Your task to perform on an android device: turn on sleep mode Image 0: 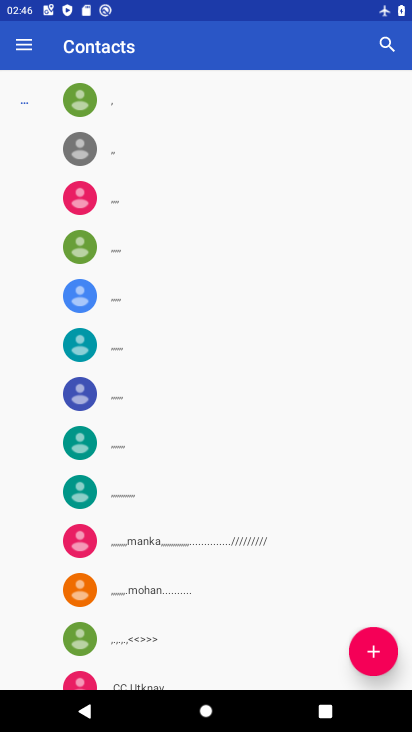
Step 0: press home button
Your task to perform on an android device: turn on sleep mode Image 1: 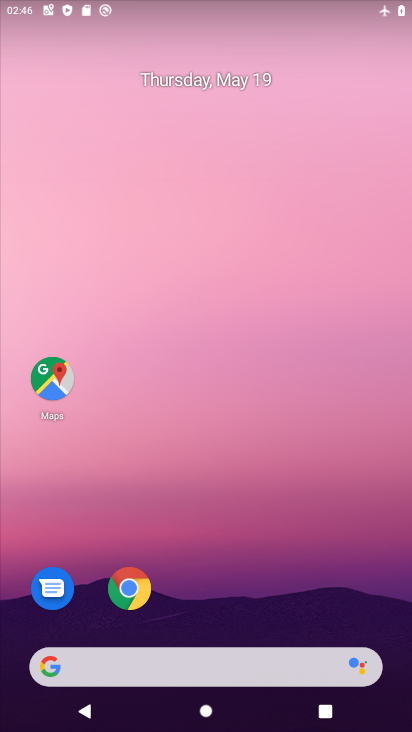
Step 1: drag from (232, 590) to (202, 101)
Your task to perform on an android device: turn on sleep mode Image 2: 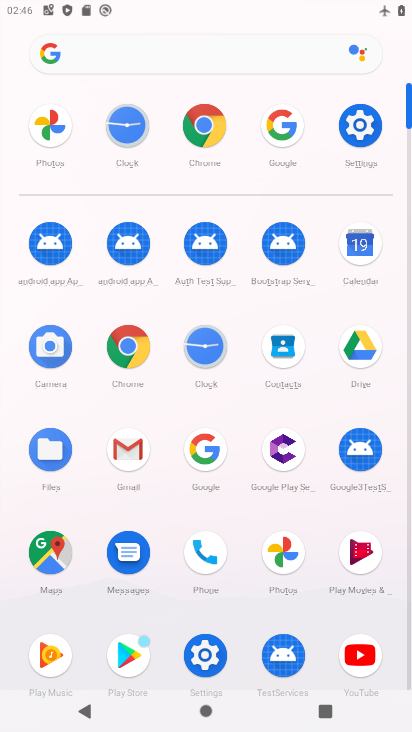
Step 2: click (359, 123)
Your task to perform on an android device: turn on sleep mode Image 3: 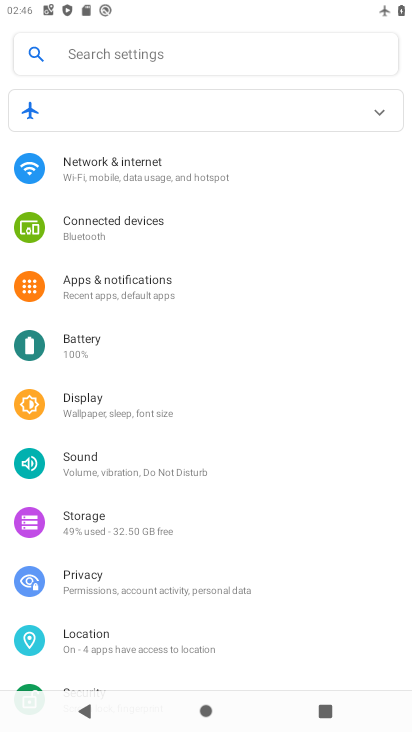
Step 3: click (177, 400)
Your task to perform on an android device: turn on sleep mode Image 4: 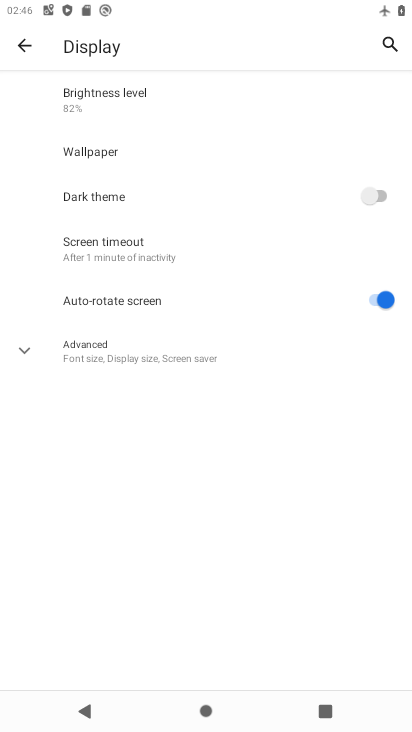
Step 4: click (137, 258)
Your task to perform on an android device: turn on sleep mode Image 5: 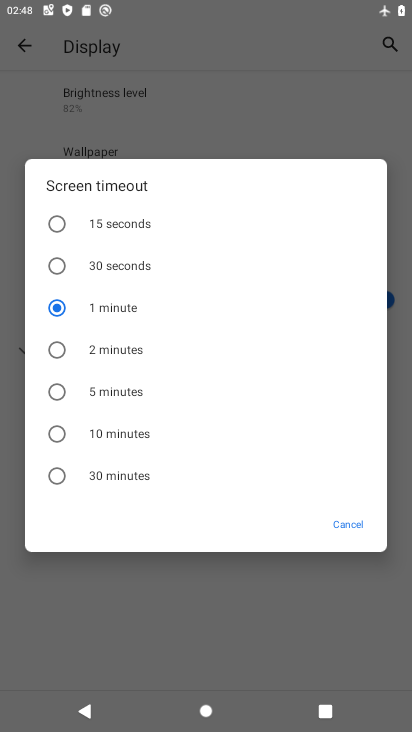
Step 5: task complete